Your task to perform on an android device: check storage Image 0: 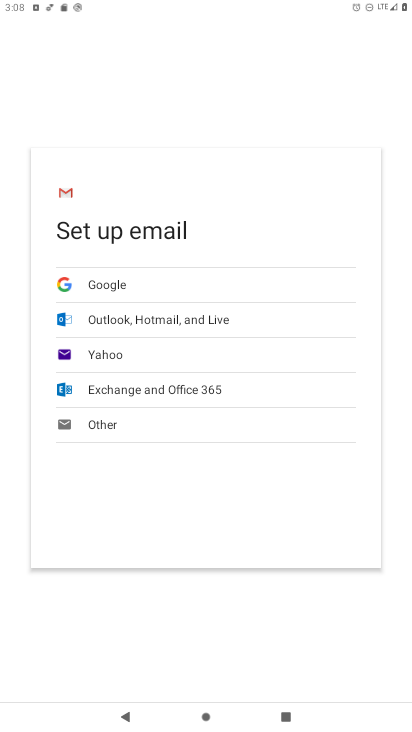
Step 0: press home button
Your task to perform on an android device: check storage Image 1: 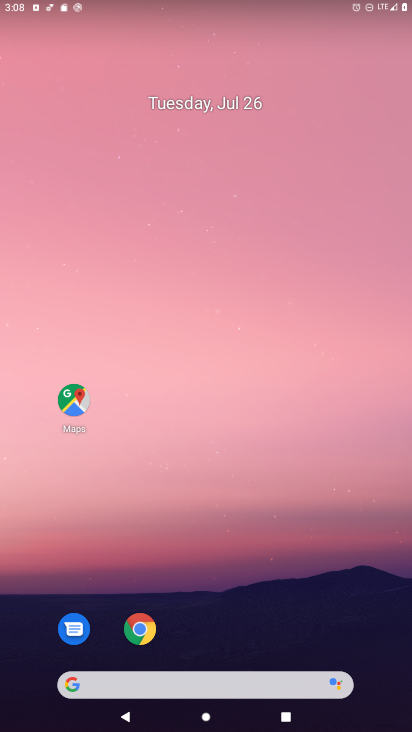
Step 1: drag from (385, 679) to (364, 116)
Your task to perform on an android device: check storage Image 2: 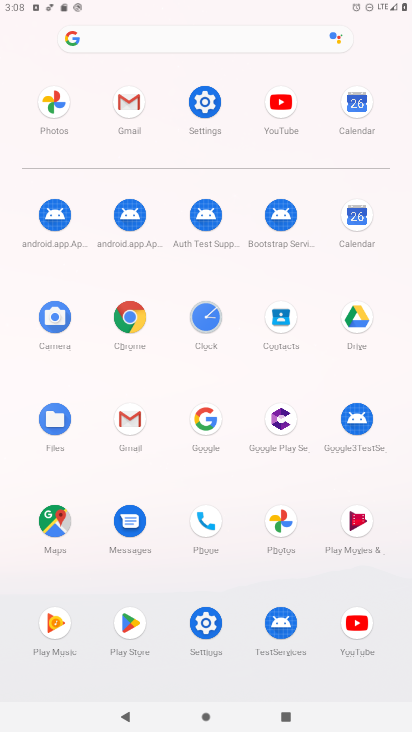
Step 2: click (207, 622)
Your task to perform on an android device: check storage Image 3: 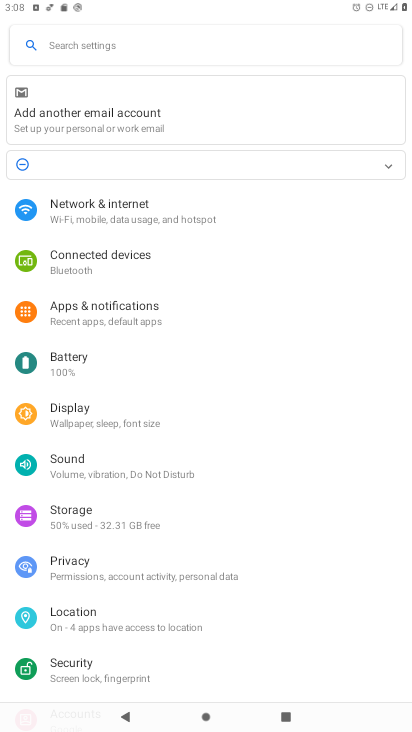
Step 3: click (77, 505)
Your task to perform on an android device: check storage Image 4: 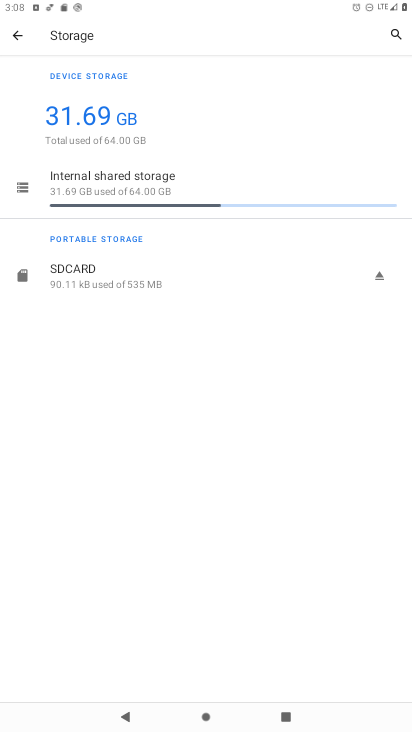
Step 4: task complete